Your task to perform on an android device: toggle wifi Image 0: 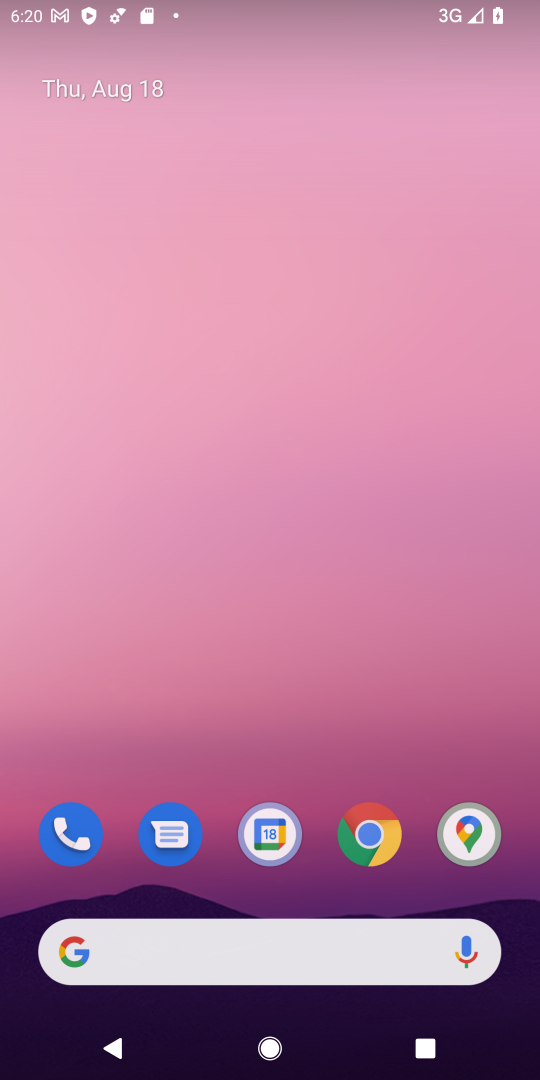
Step 0: press home button
Your task to perform on an android device: toggle wifi Image 1: 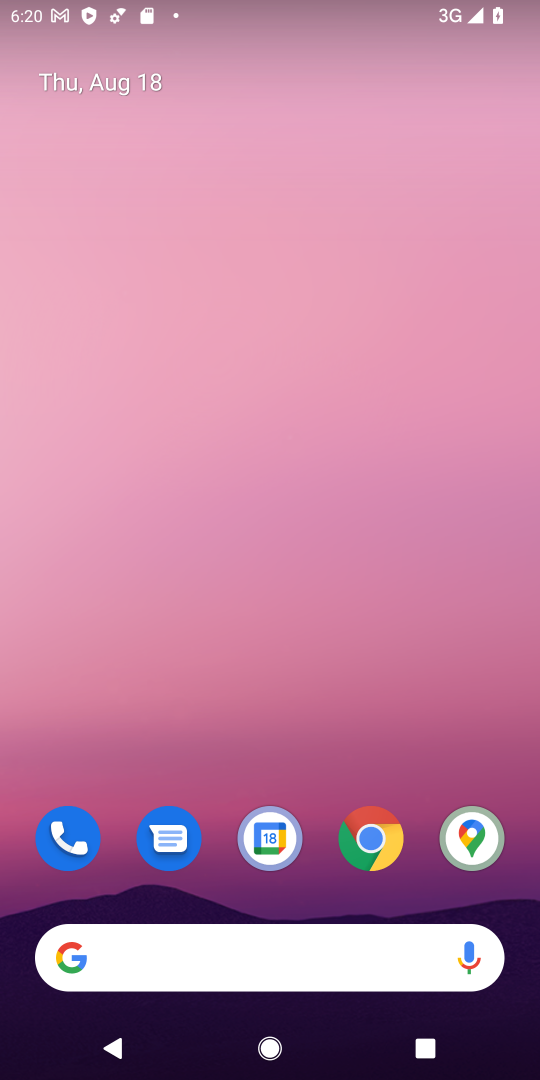
Step 1: drag from (305, 900) to (193, 40)
Your task to perform on an android device: toggle wifi Image 2: 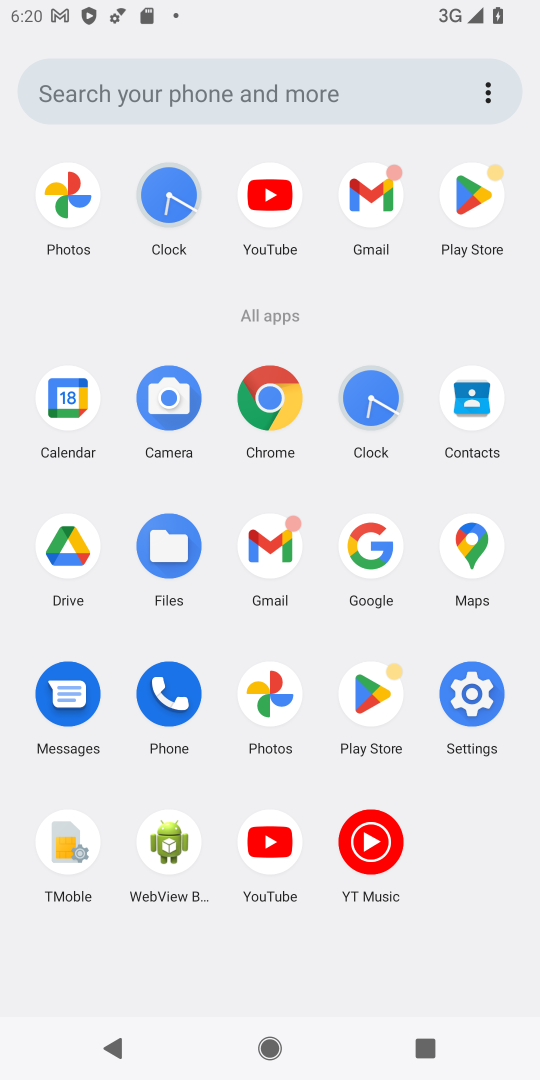
Step 2: click (460, 700)
Your task to perform on an android device: toggle wifi Image 3: 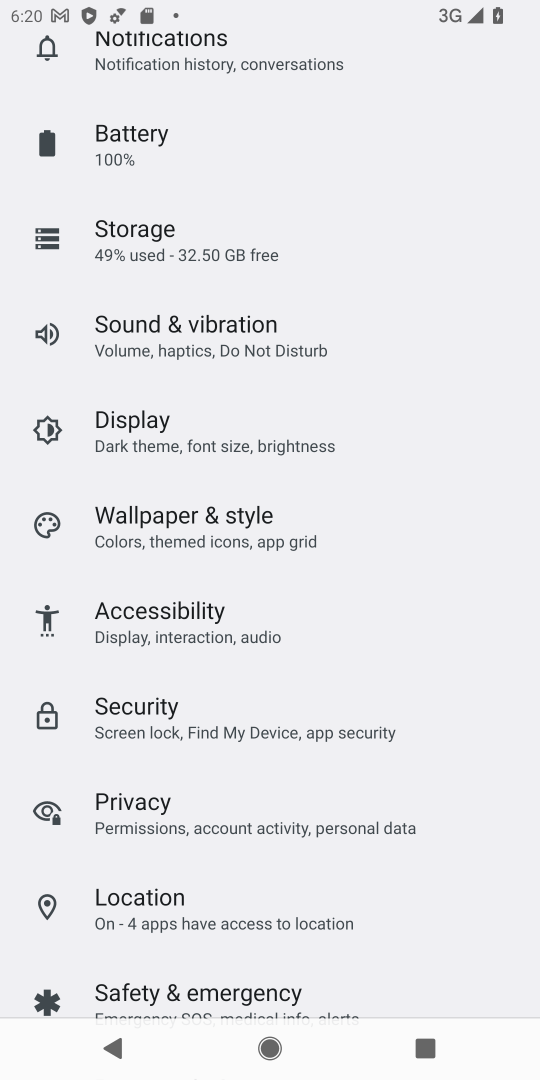
Step 3: drag from (348, 194) to (343, 1029)
Your task to perform on an android device: toggle wifi Image 4: 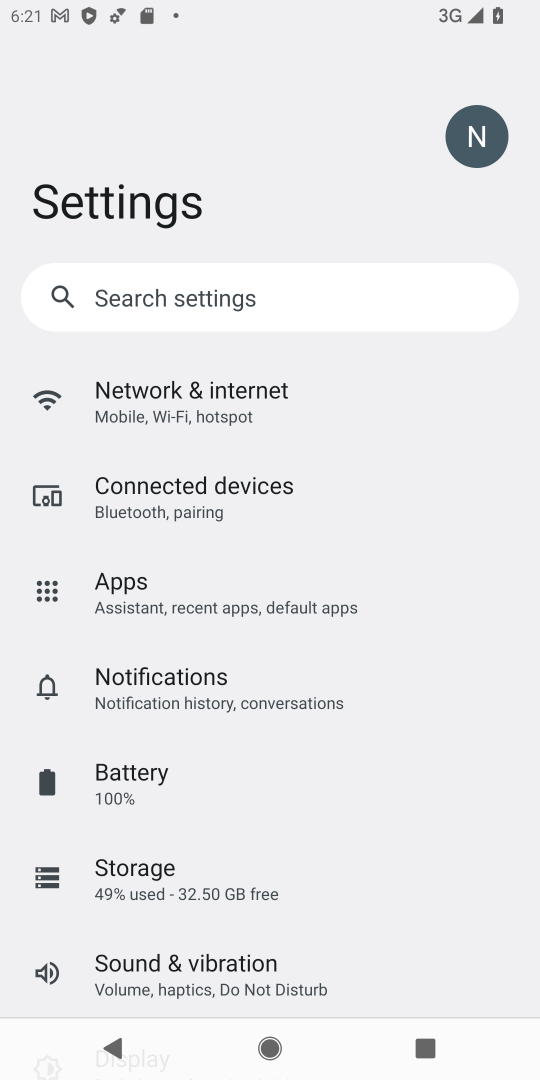
Step 4: click (179, 396)
Your task to perform on an android device: toggle wifi Image 5: 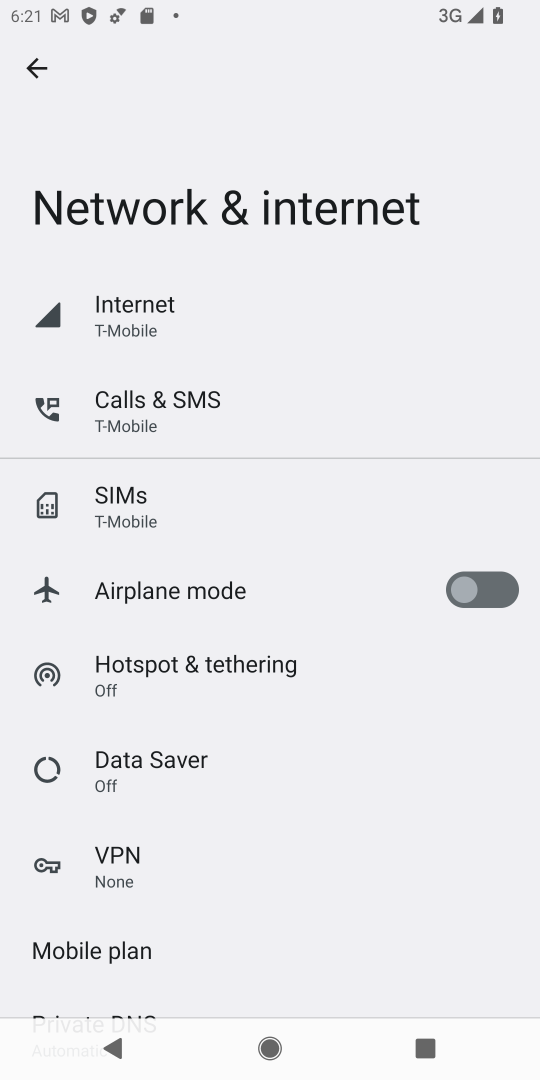
Step 5: click (108, 305)
Your task to perform on an android device: toggle wifi Image 6: 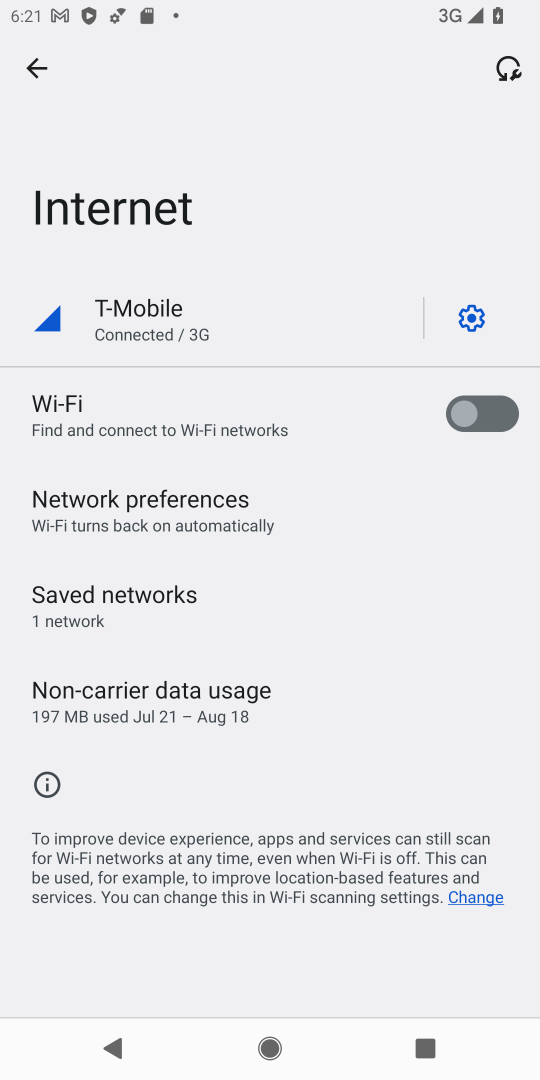
Step 6: click (445, 419)
Your task to perform on an android device: toggle wifi Image 7: 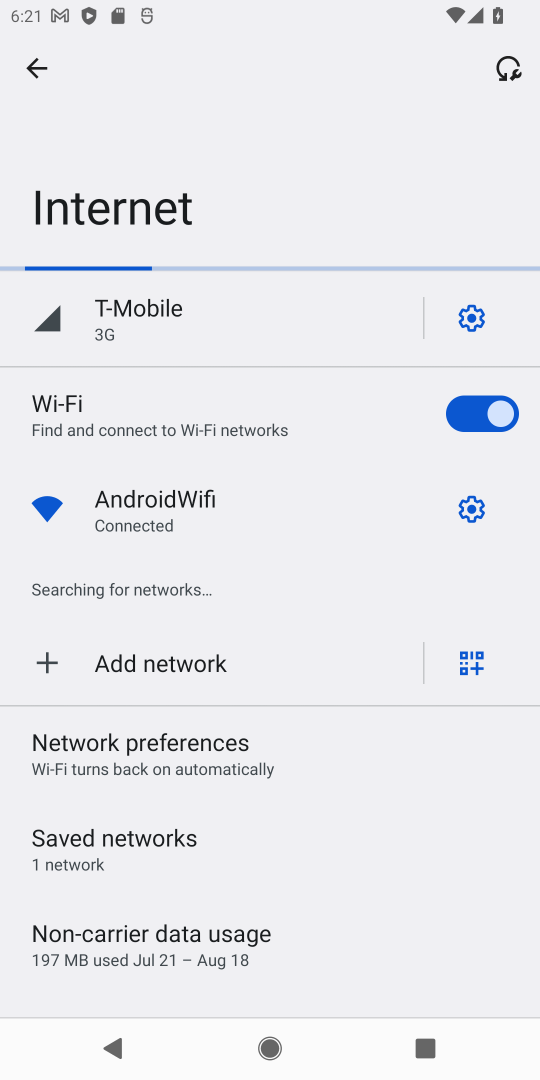
Step 7: task complete